Your task to perform on an android device: stop showing notifications on the lock screen Image 0: 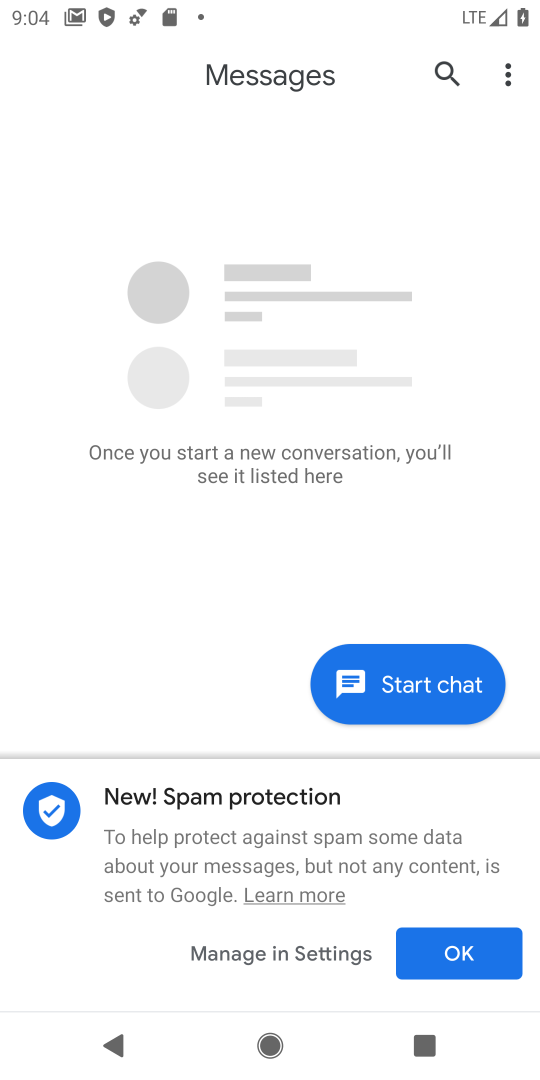
Step 0: press home button
Your task to perform on an android device: stop showing notifications on the lock screen Image 1: 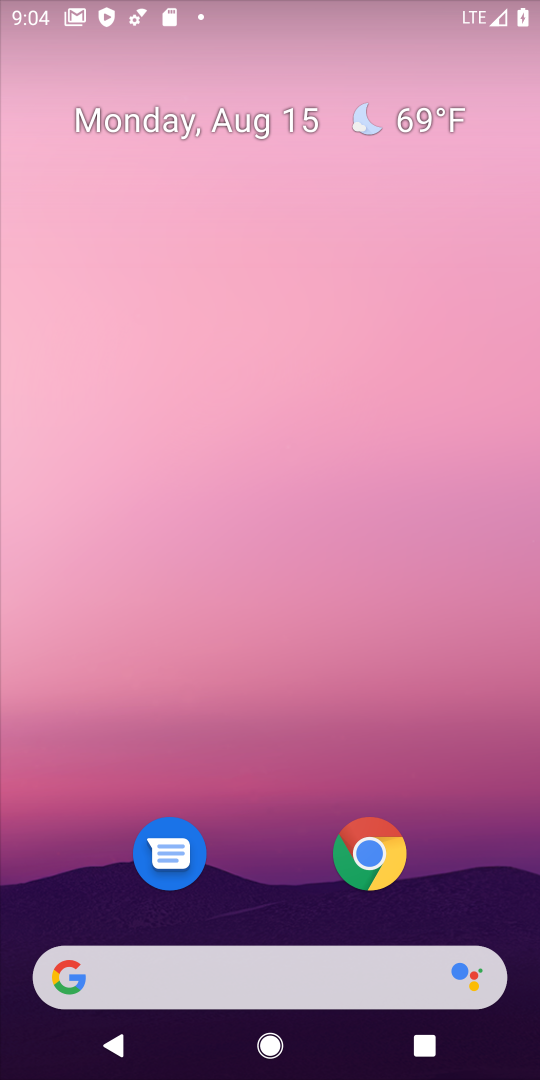
Step 1: click (407, 606)
Your task to perform on an android device: stop showing notifications on the lock screen Image 2: 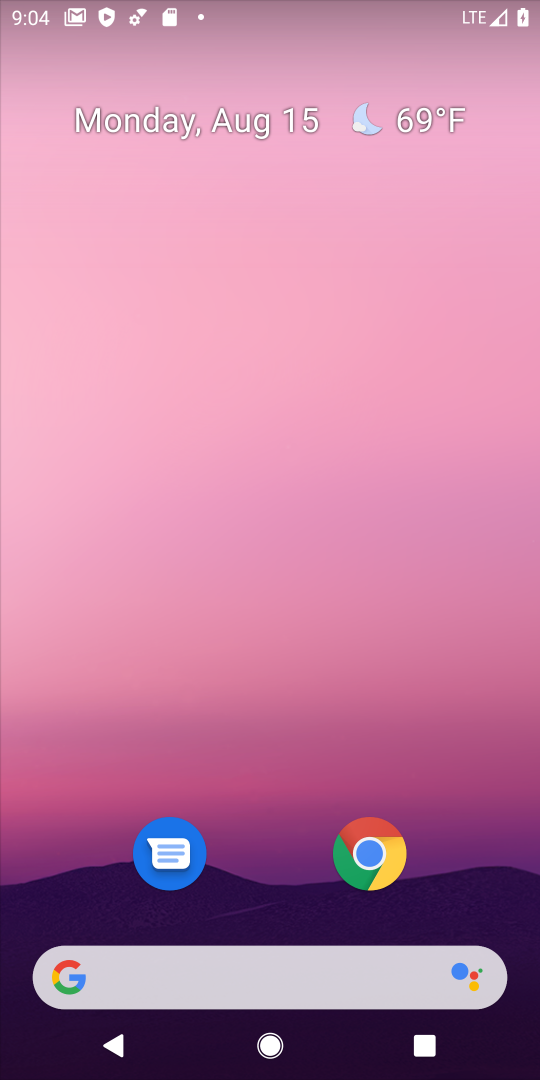
Step 2: drag from (502, 958) to (269, 209)
Your task to perform on an android device: stop showing notifications on the lock screen Image 3: 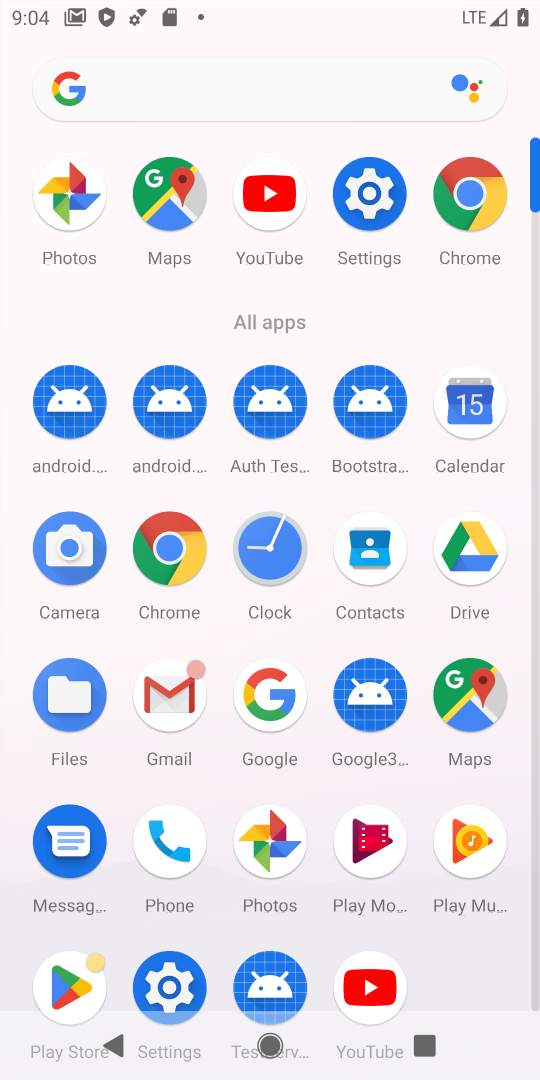
Step 3: click (376, 193)
Your task to perform on an android device: stop showing notifications on the lock screen Image 4: 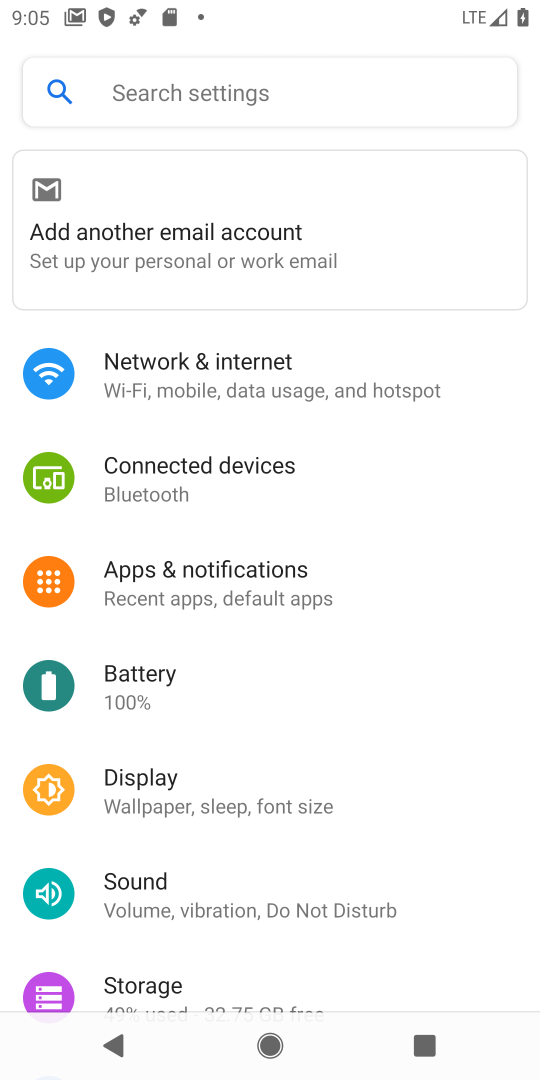
Step 4: drag from (114, 829) to (147, 194)
Your task to perform on an android device: stop showing notifications on the lock screen Image 5: 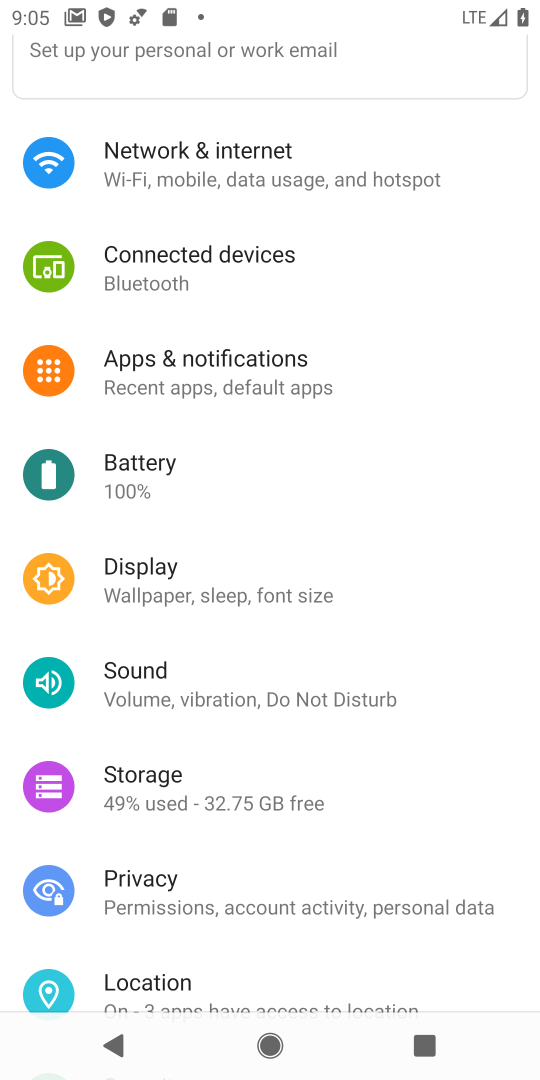
Step 5: click (123, 361)
Your task to perform on an android device: stop showing notifications on the lock screen Image 6: 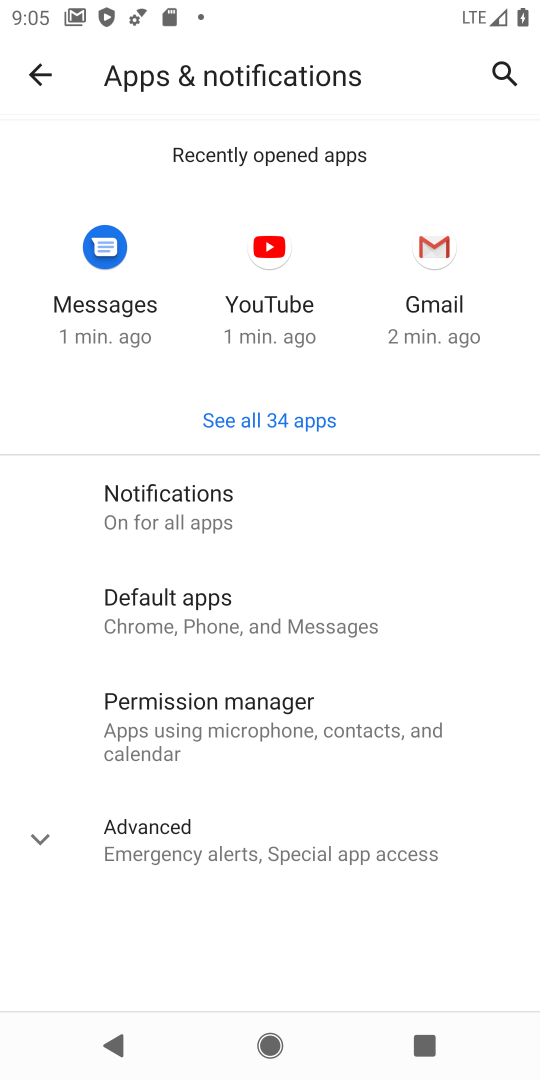
Step 6: click (135, 497)
Your task to perform on an android device: stop showing notifications on the lock screen Image 7: 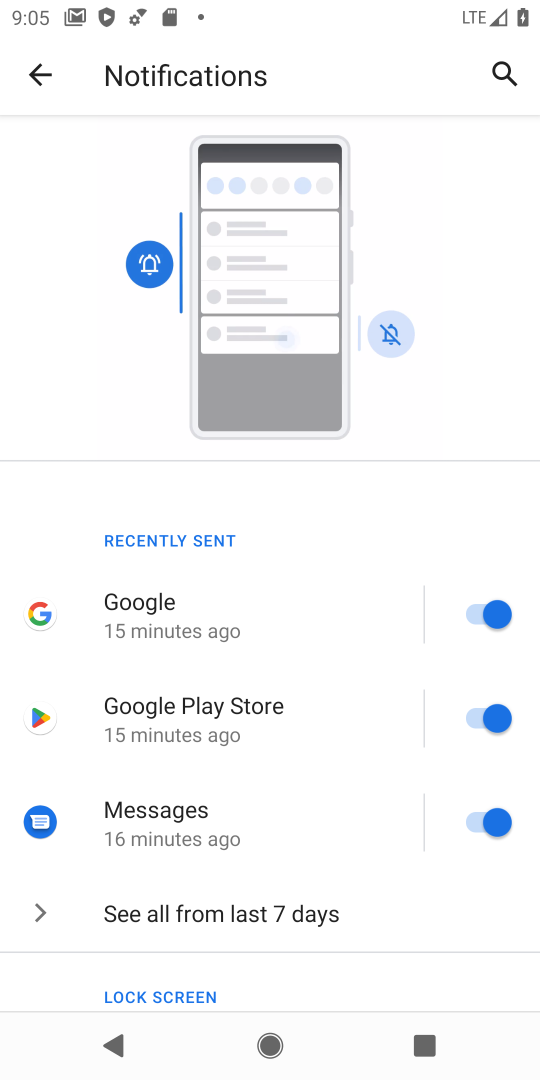
Step 7: drag from (237, 946) to (366, 113)
Your task to perform on an android device: stop showing notifications on the lock screen Image 8: 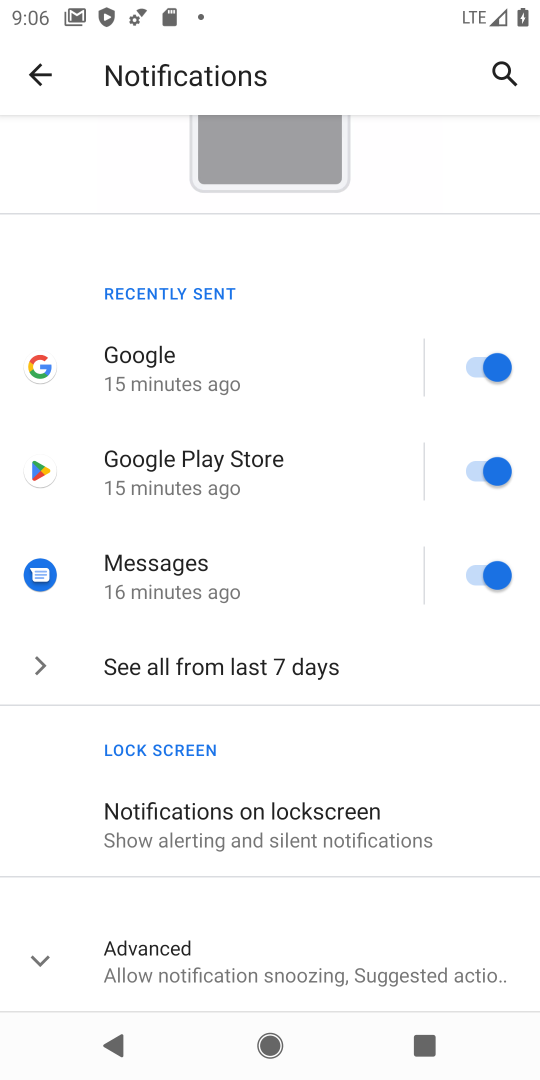
Step 8: click (230, 837)
Your task to perform on an android device: stop showing notifications on the lock screen Image 9: 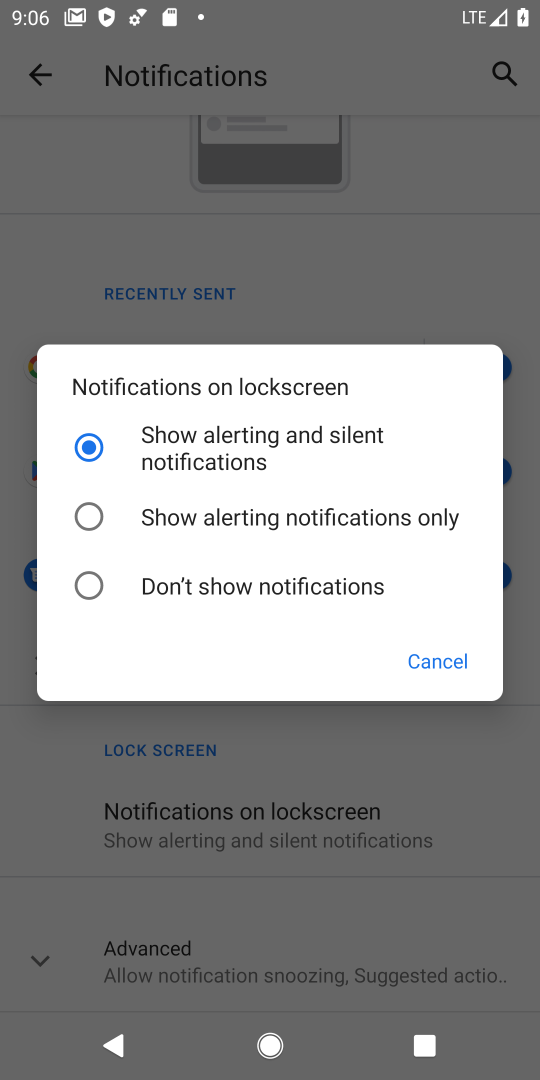
Step 9: click (320, 587)
Your task to perform on an android device: stop showing notifications on the lock screen Image 10: 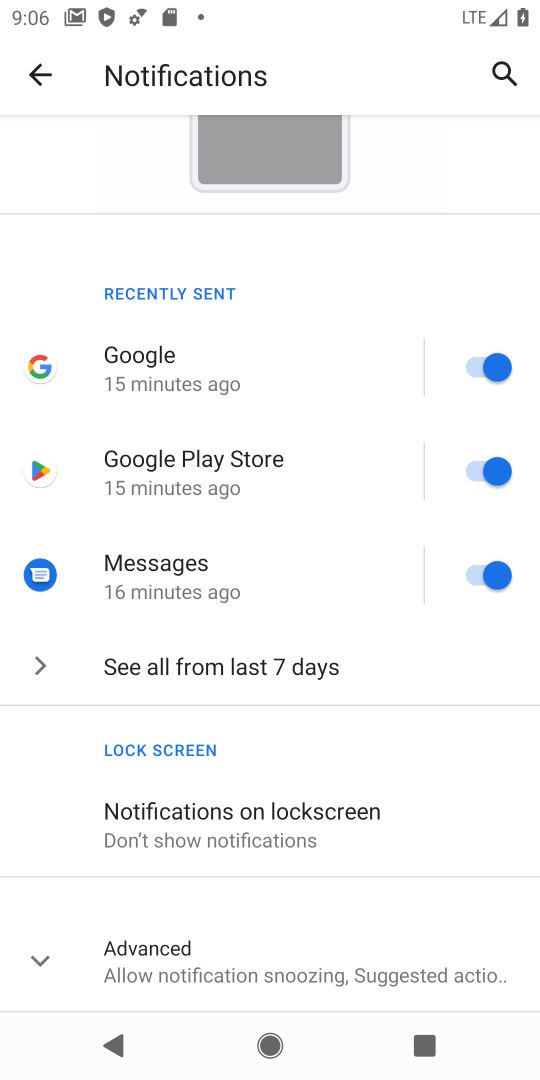
Step 10: task complete